Your task to perform on an android device: make emails show in primary in the gmail app Image 0: 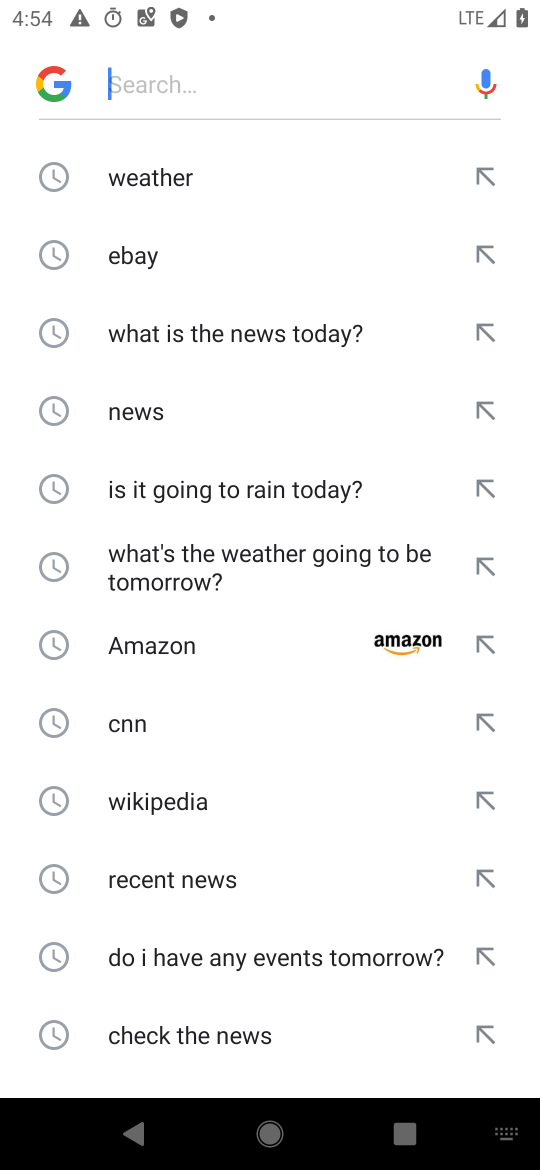
Step 0: press home button
Your task to perform on an android device: make emails show in primary in the gmail app Image 1: 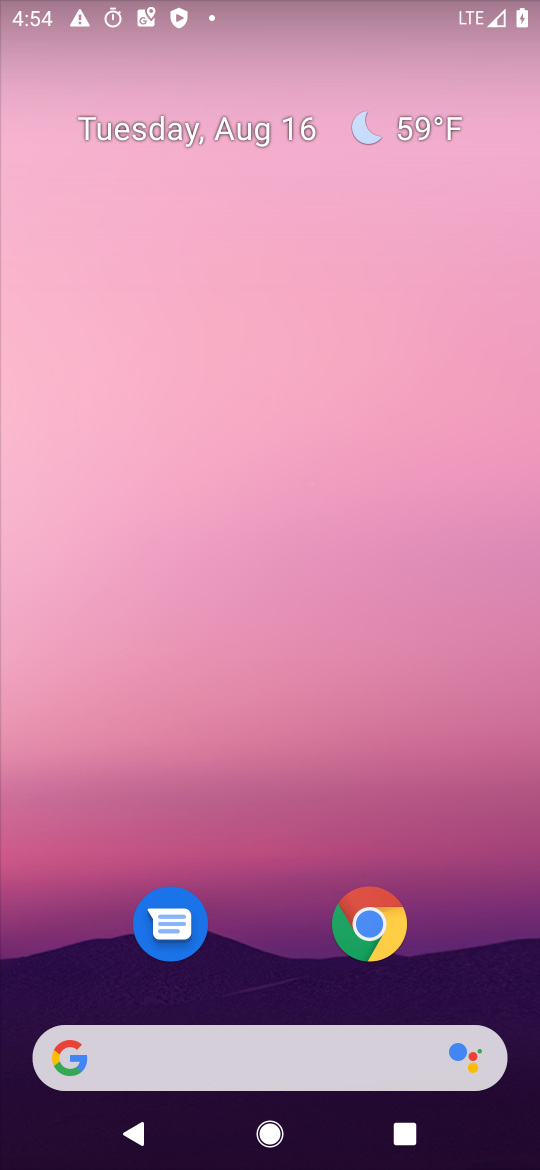
Step 1: drag from (264, 977) to (322, 104)
Your task to perform on an android device: make emails show in primary in the gmail app Image 2: 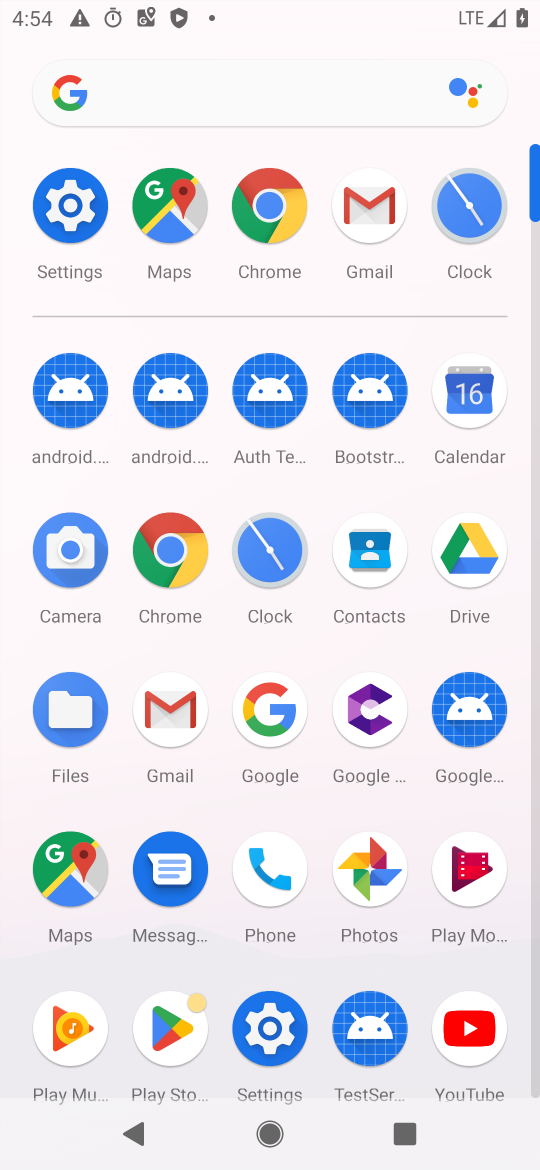
Step 2: click (370, 218)
Your task to perform on an android device: make emails show in primary in the gmail app Image 3: 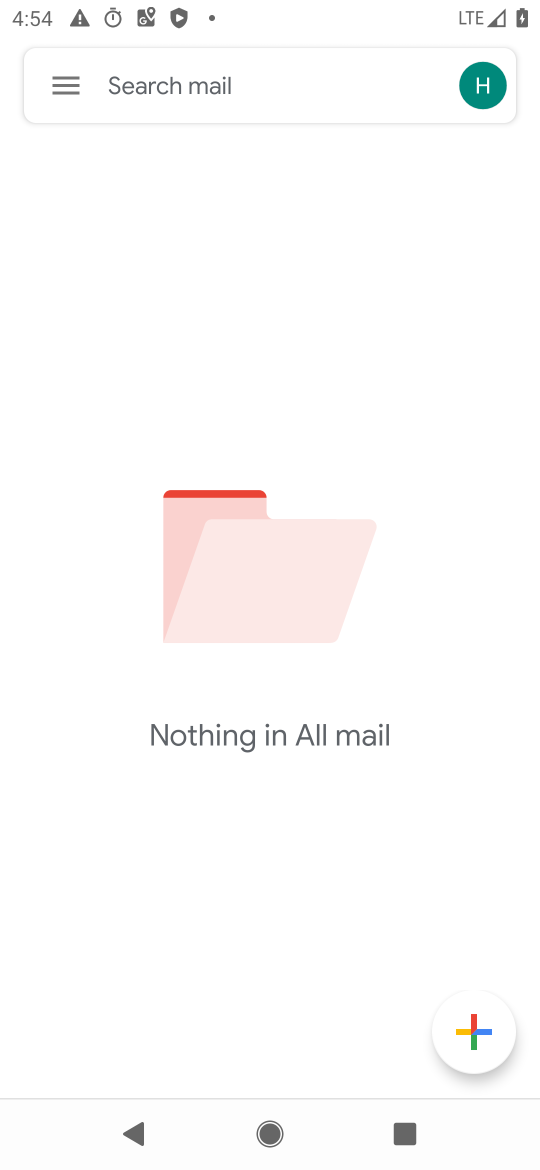
Step 3: click (49, 66)
Your task to perform on an android device: make emails show in primary in the gmail app Image 4: 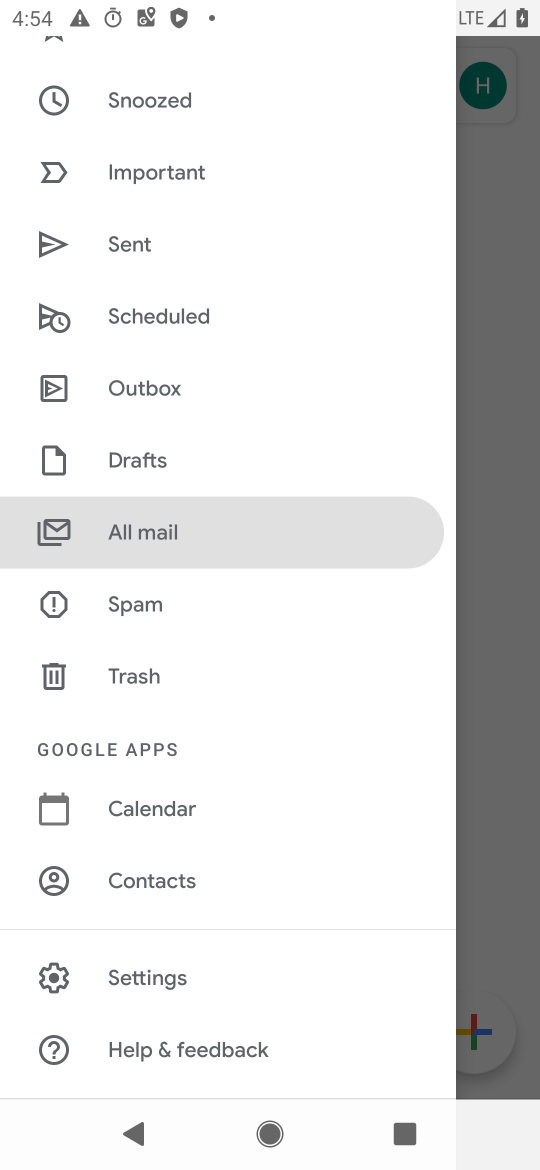
Step 4: task complete